Your task to perform on an android device: toggle data saver in the chrome app Image 0: 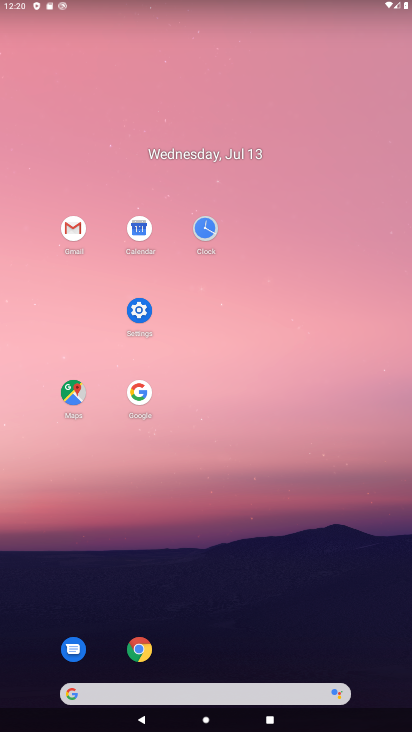
Step 0: click (141, 654)
Your task to perform on an android device: toggle data saver in the chrome app Image 1: 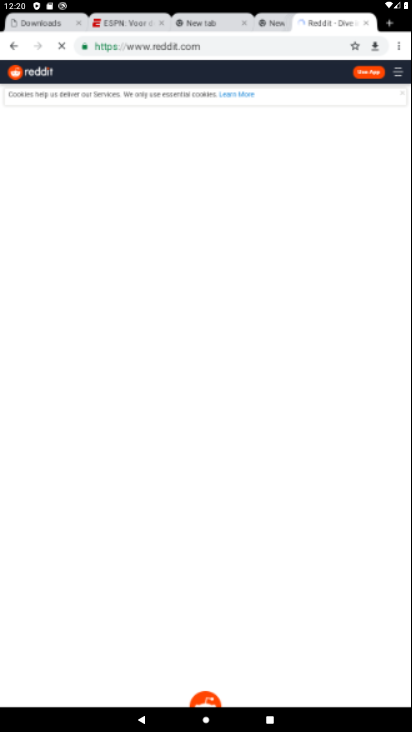
Step 1: click (392, 46)
Your task to perform on an android device: toggle data saver in the chrome app Image 2: 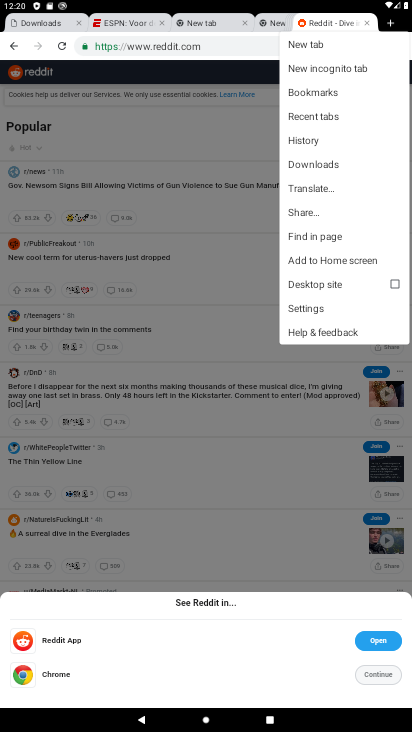
Step 2: click (316, 300)
Your task to perform on an android device: toggle data saver in the chrome app Image 3: 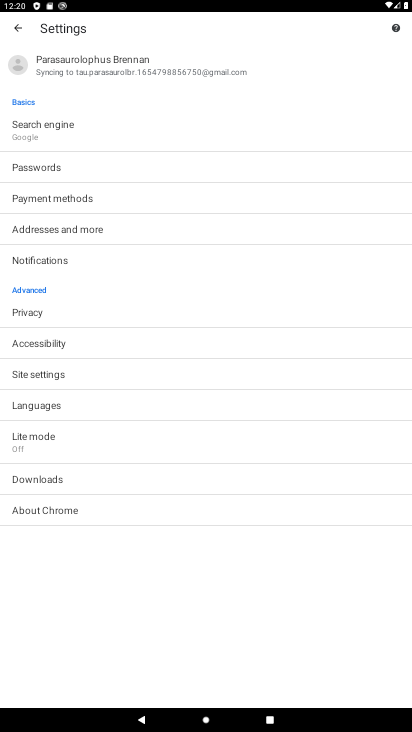
Step 3: click (165, 440)
Your task to perform on an android device: toggle data saver in the chrome app Image 4: 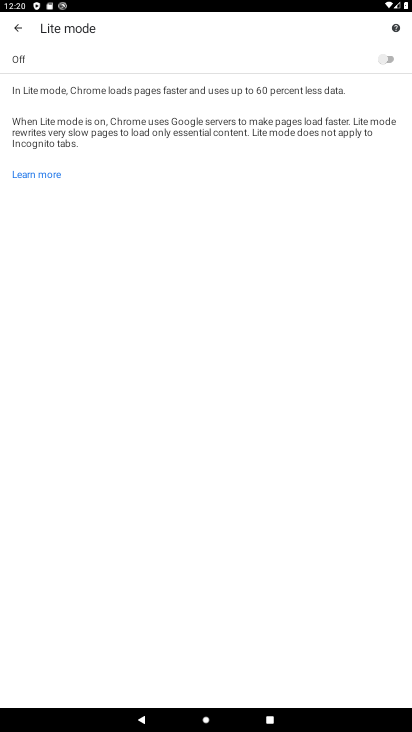
Step 4: click (381, 61)
Your task to perform on an android device: toggle data saver in the chrome app Image 5: 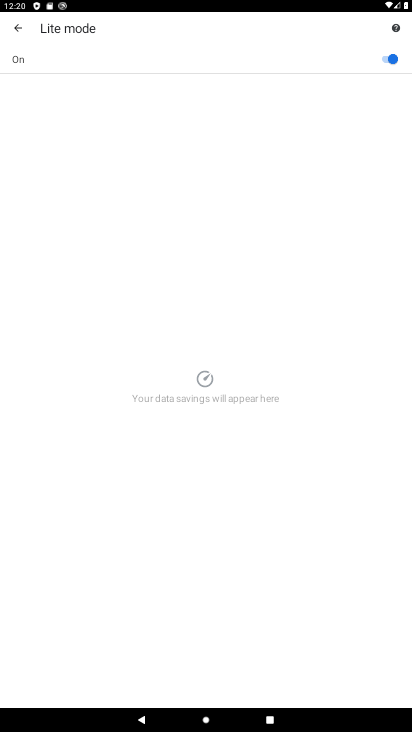
Step 5: task complete